Your task to perform on an android device: What is the news today? Image 0: 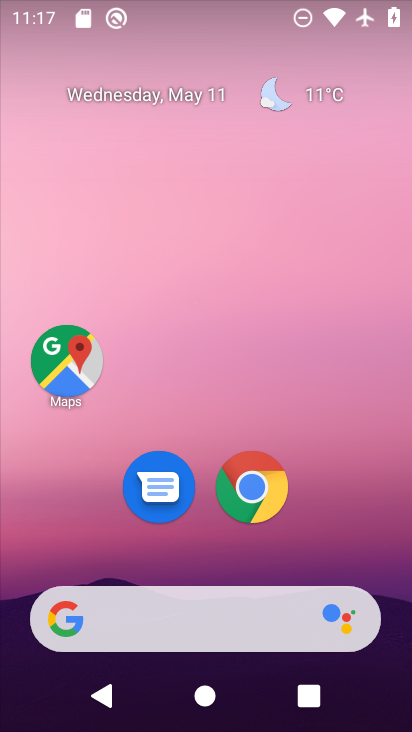
Step 0: drag from (313, 512) to (217, 2)
Your task to perform on an android device: What is the news today? Image 1: 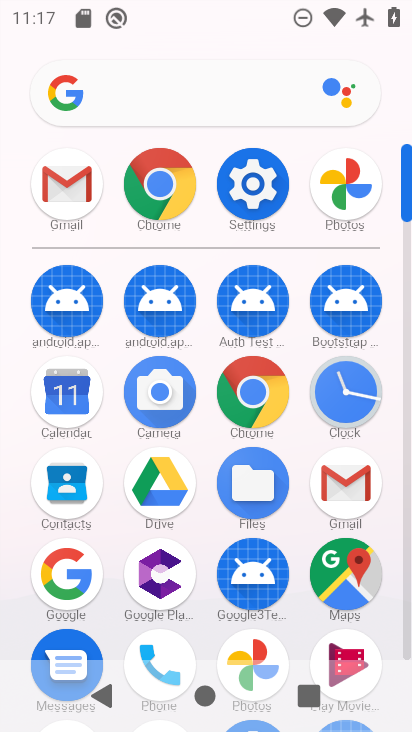
Step 1: click (158, 180)
Your task to perform on an android device: What is the news today? Image 2: 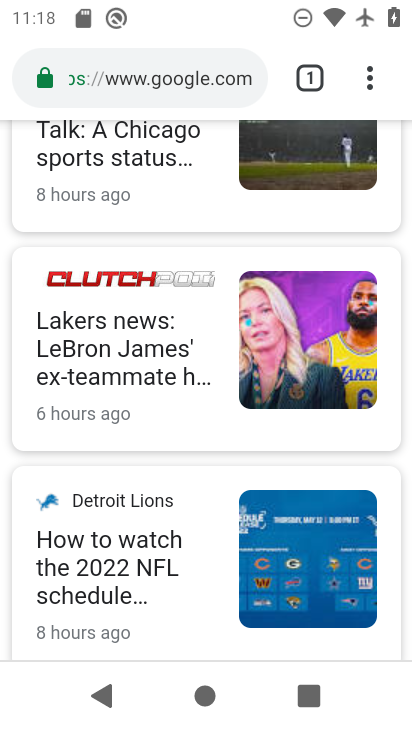
Step 2: click (156, 78)
Your task to perform on an android device: What is the news today? Image 3: 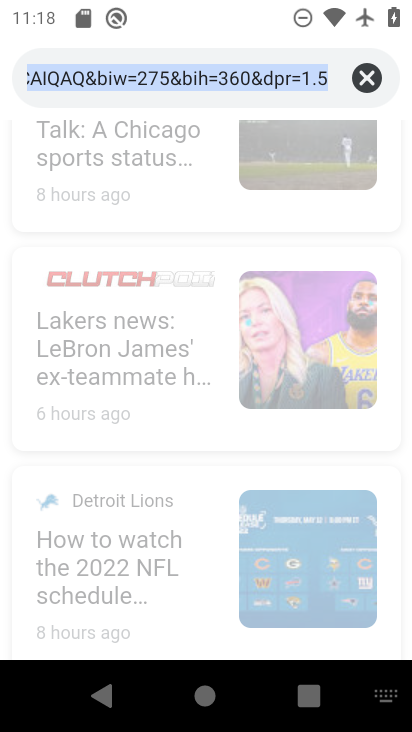
Step 3: click (370, 69)
Your task to perform on an android device: What is the news today? Image 4: 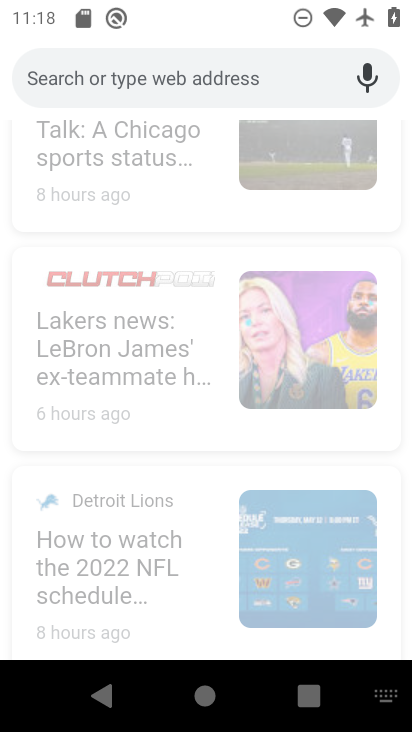
Step 4: task complete